Your task to perform on an android device: turn vacation reply on in the gmail app Image 0: 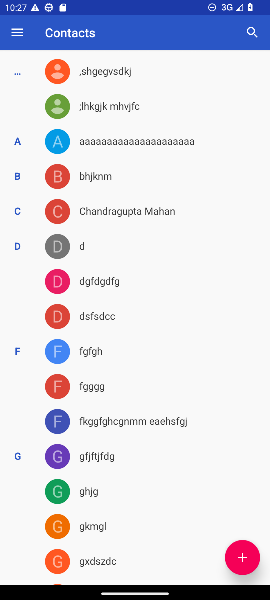
Step 0: press home button
Your task to perform on an android device: turn vacation reply on in the gmail app Image 1: 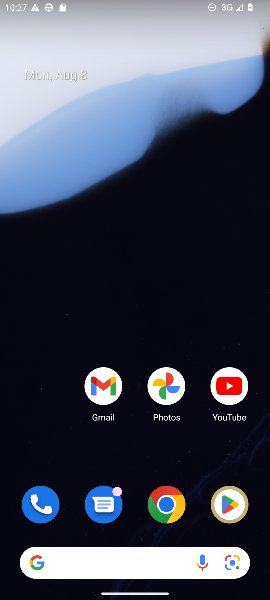
Step 1: click (104, 393)
Your task to perform on an android device: turn vacation reply on in the gmail app Image 2: 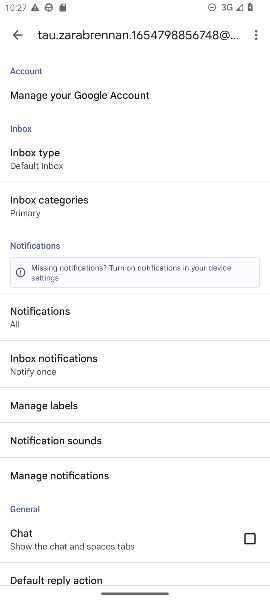
Step 2: drag from (49, 435) to (67, 262)
Your task to perform on an android device: turn vacation reply on in the gmail app Image 3: 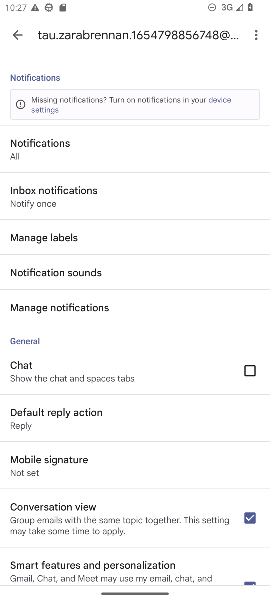
Step 3: drag from (129, 534) to (130, 409)
Your task to perform on an android device: turn vacation reply on in the gmail app Image 4: 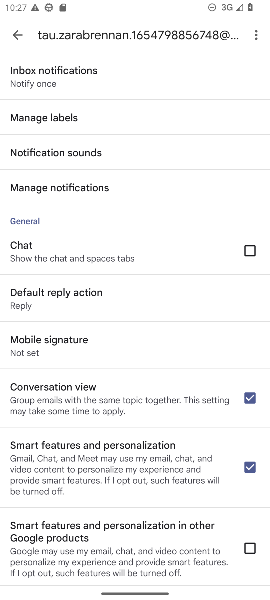
Step 4: drag from (126, 518) to (165, 146)
Your task to perform on an android device: turn vacation reply on in the gmail app Image 5: 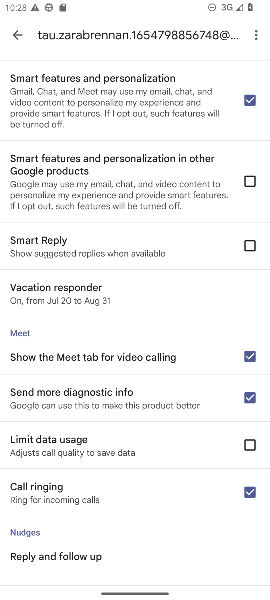
Step 5: click (71, 293)
Your task to perform on an android device: turn vacation reply on in the gmail app Image 6: 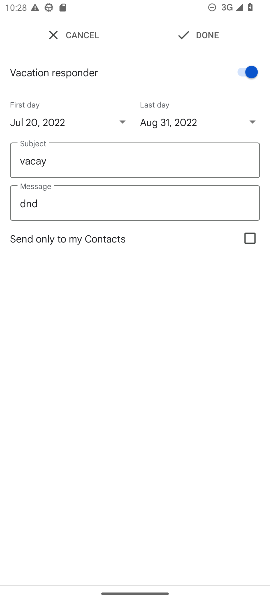
Step 6: task complete